Your task to perform on an android device: change your default location settings in chrome Image 0: 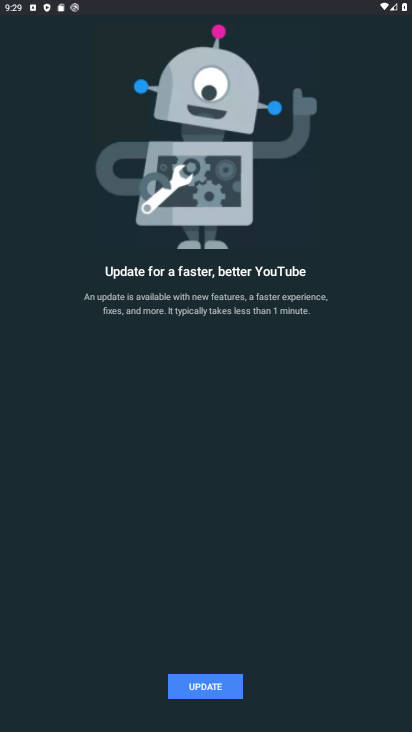
Step 0: press home button
Your task to perform on an android device: change your default location settings in chrome Image 1: 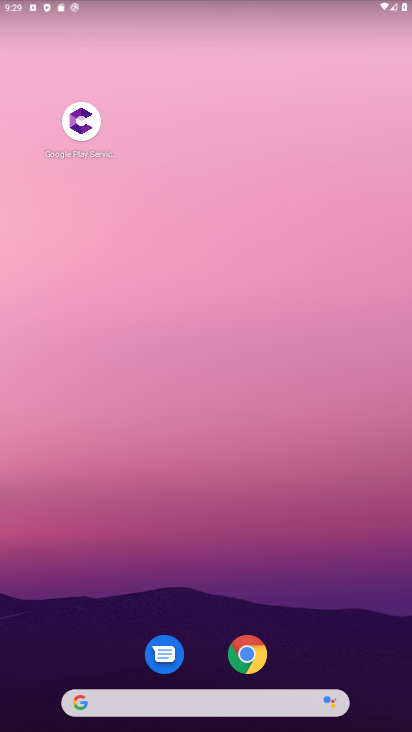
Step 1: click (238, 669)
Your task to perform on an android device: change your default location settings in chrome Image 2: 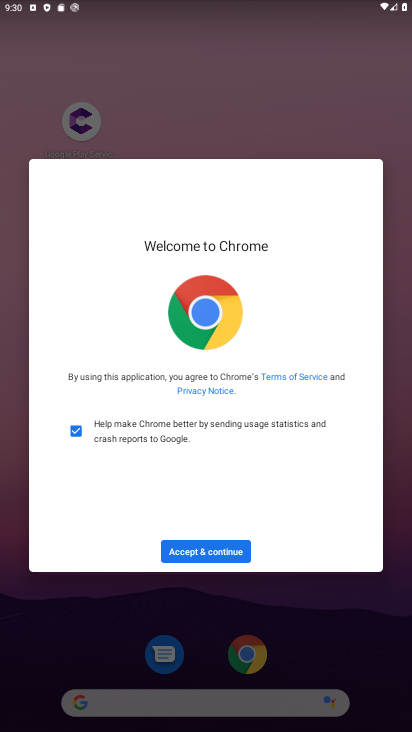
Step 2: click (223, 548)
Your task to perform on an android device: change your default location settings in chrome Image 3: 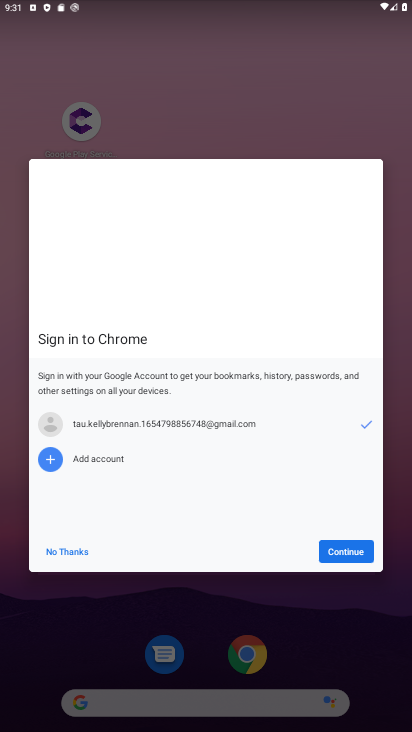
Step 3: click (337, 559)
Your task to perform on an android device: change your default location settings in chrome Image 4: 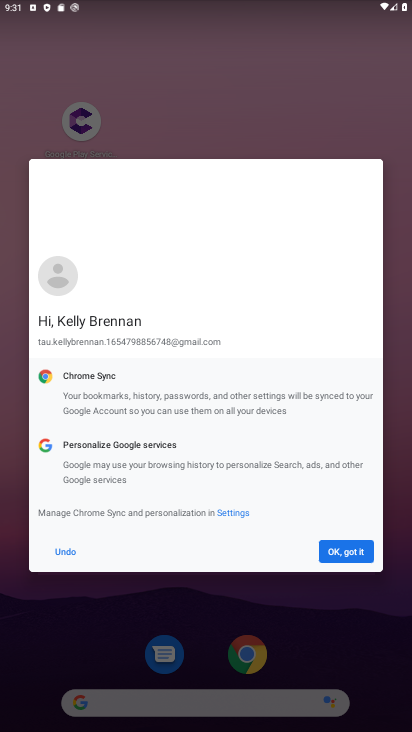
Step 4: click (352, 558)
Your task to perform on an android device: change your default location settings in chrome Image 5: 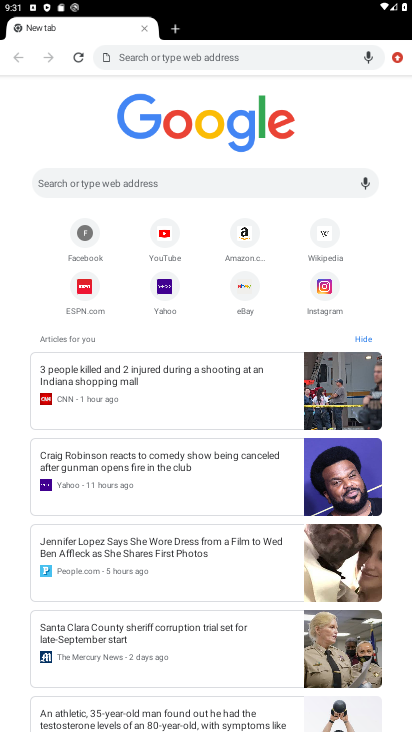
Step 5: click (386, 58)
Your task to perform on an android device: change your default location settings in chrome Image 6: 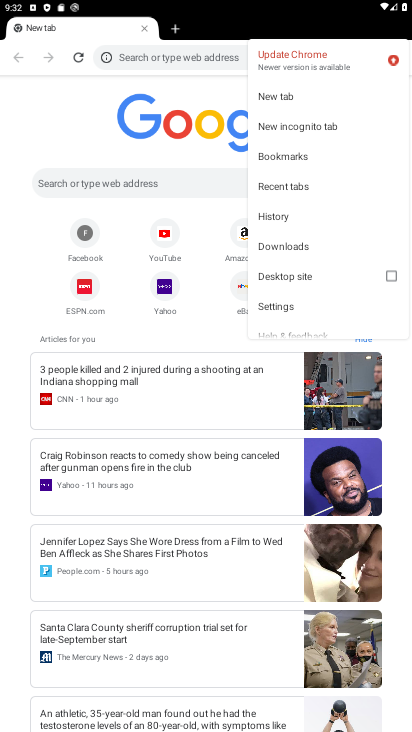
Step 6: click (294, 306)
Your task to perform on an android device: change your default location settings in chrome Image 7: 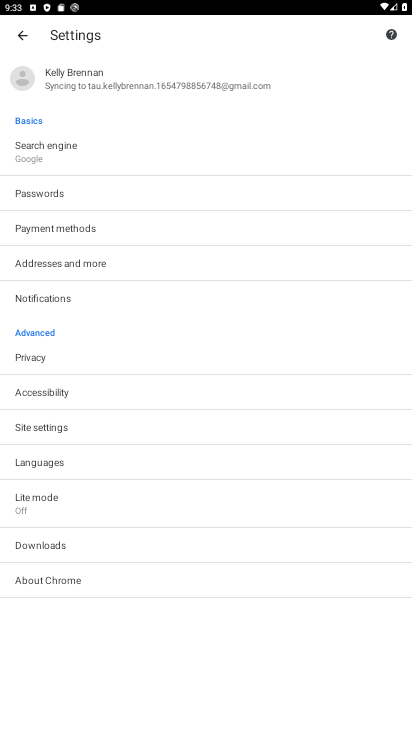
Step 7: click (74, 428)
Your task to perform on an android device: change your default location settings in chrome Image 8: 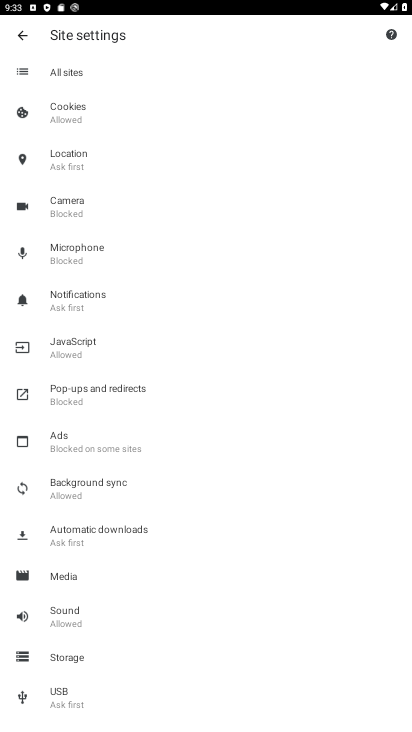
Step 8: click (98, 166)
Your task to perform on an android device: change your default location settings in chrome Image 9: 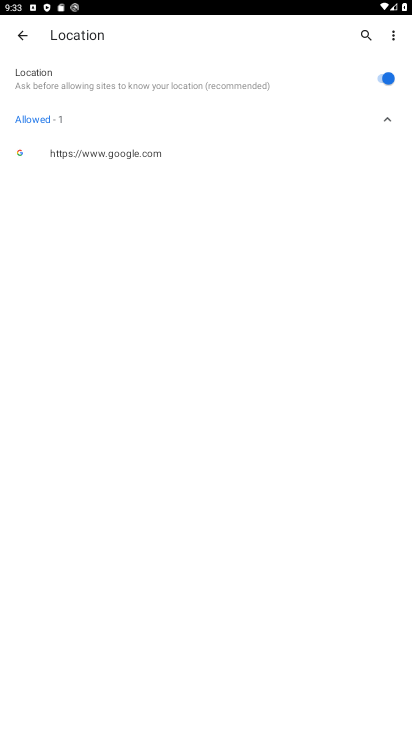
Step 9: click (376, 82)
Your task to perform on an android device: change your default location settings in chrome Image 10: 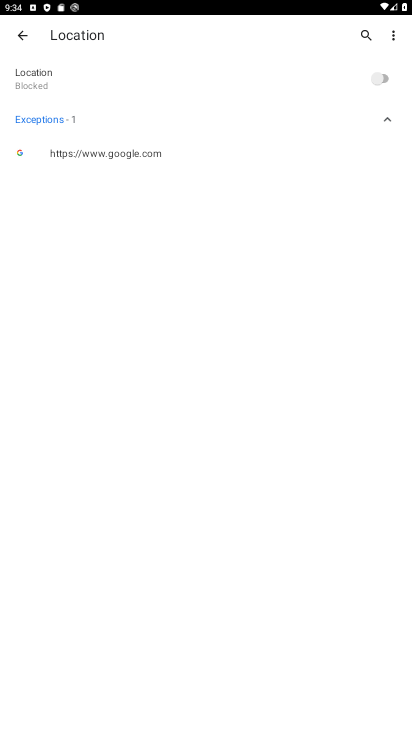
Step 10: task complete